Your task to perform on an android device: make emails show in primary in the gmail app Image 0: 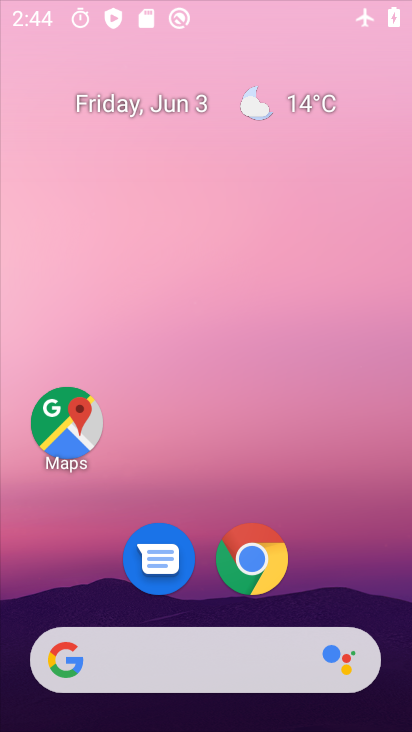
Step 0: click (126, 10)
Your task to perform on an android device: make emails show in primary in the gmail app Image 1: 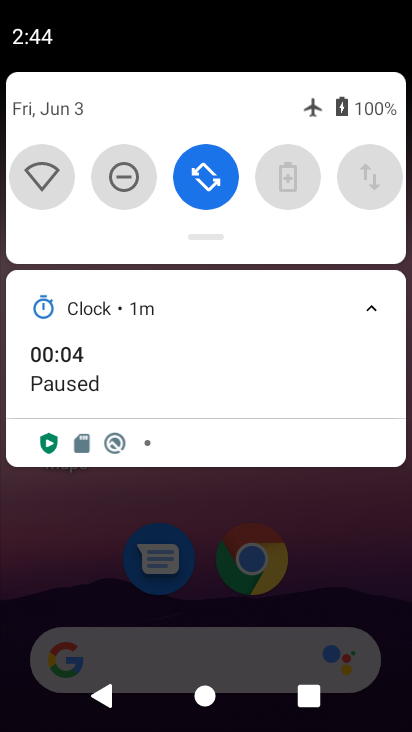
Step 1: drag from (222, 593) to (157, 17)
Your task to perform on an android device: make emails show in primary in the gmail app Image 2: 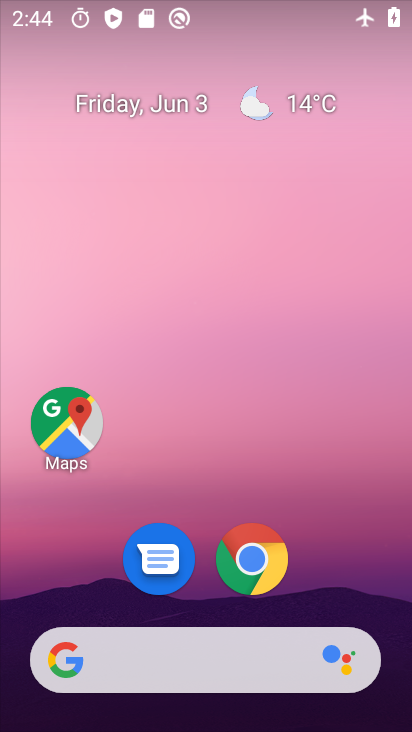
Step 2: drag from (251, 585) to (173, 21)
Your task to perform on an android device: make emails show in primary in the gmail app Image 3: 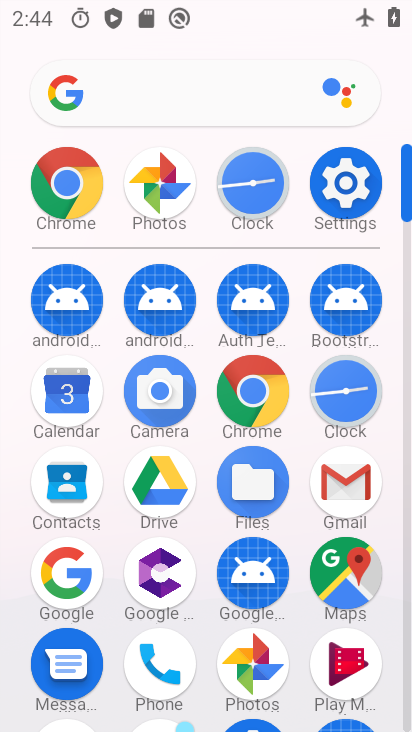
Step 3: click (340, 496)
Your task to perform on an android device: make emails show in primary in the gmail app Image 4: 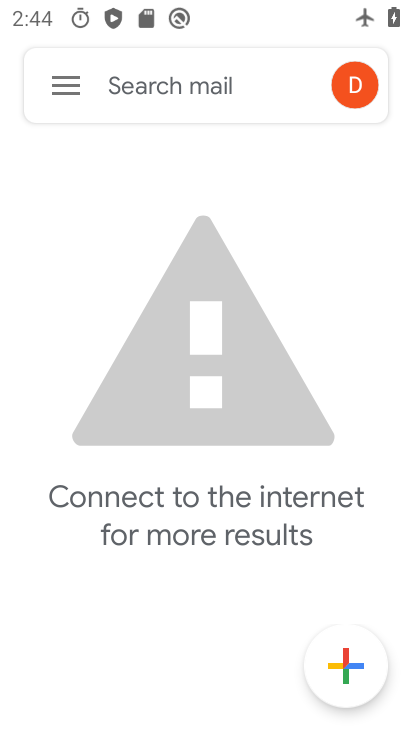
Step 4: click (52, 74)
Your task to perform on an android device: make emails show in primary in the gmail app Image 5: 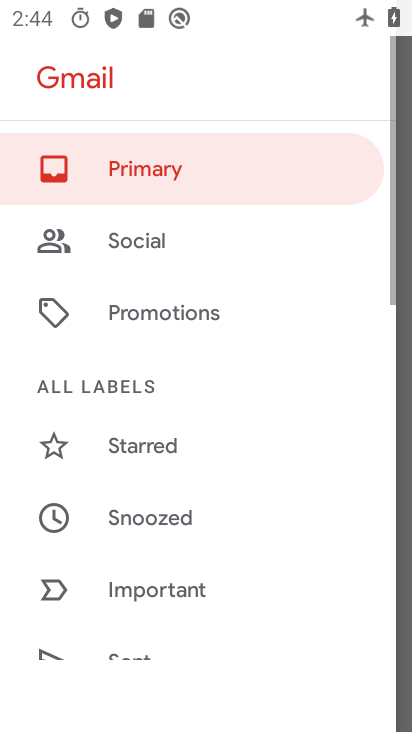
Step 5: click (141, 174)
Your task to perform on an android device: make emails show in primary in the gmail app Image 6: 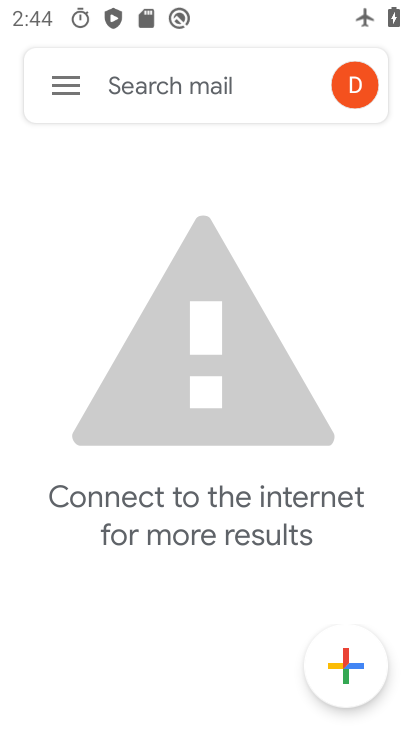
Step 6: task complete